Your task to perform on an android device: Go to privacy settings Image 0: 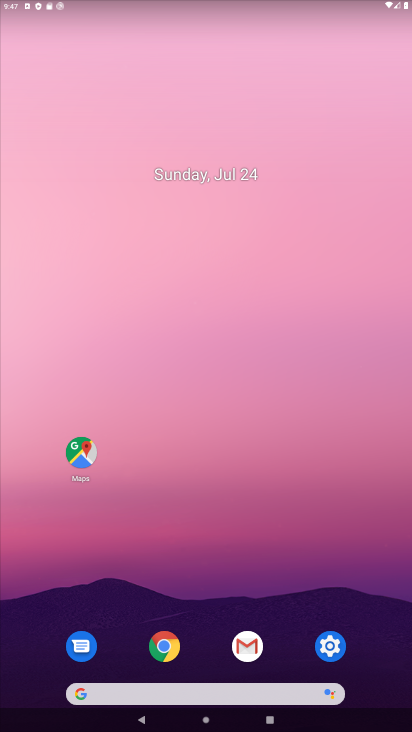
Step 0: click (325, 649)
Your task to perform on an android device: Go to privacy settings Image 1: 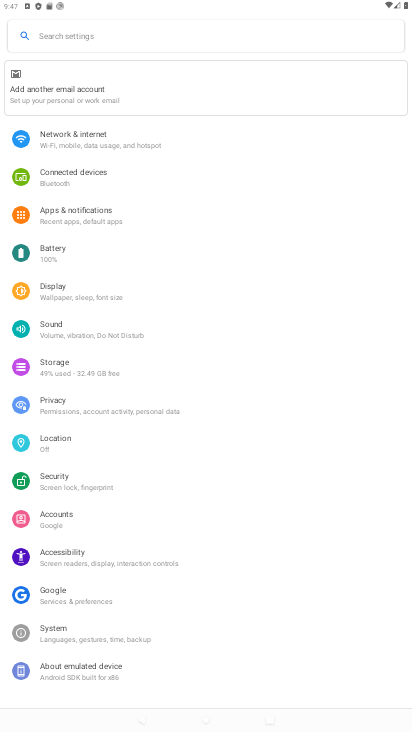
Step 1: click (104, 401)
Your task to perform on an android device: Go to privacy settings Image 2: 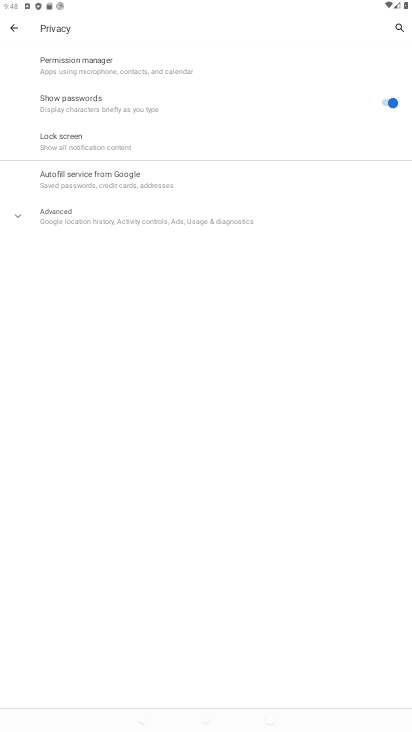
Step 2: task complete